Your task to perform on an android device: turn off improve location accuracy Image 0: 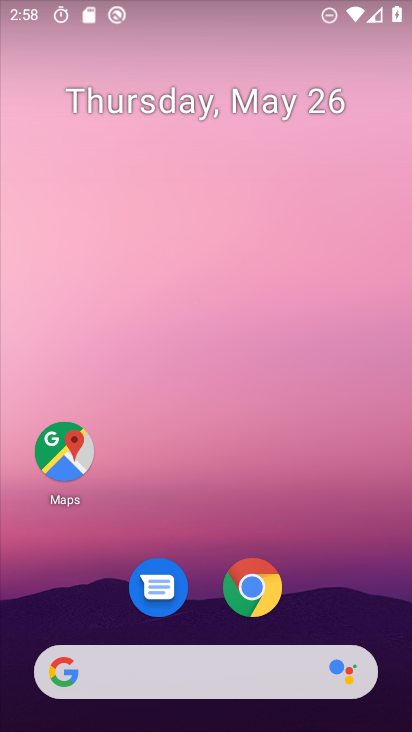
Step 0: drag from (365, 373) to (335, 97)
Your task to perform on an android device: turn off improve location accuracy Image 1: 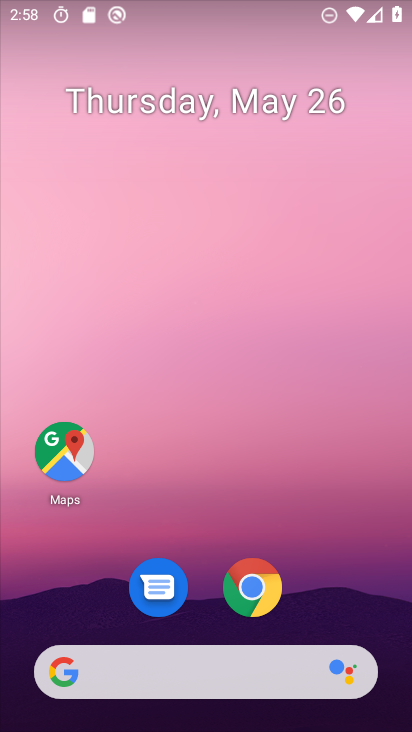
Step 1: drag from (276, 534) to (271, 156)
Your task to perform on an android device: turn off improve location accuracy Image 2: 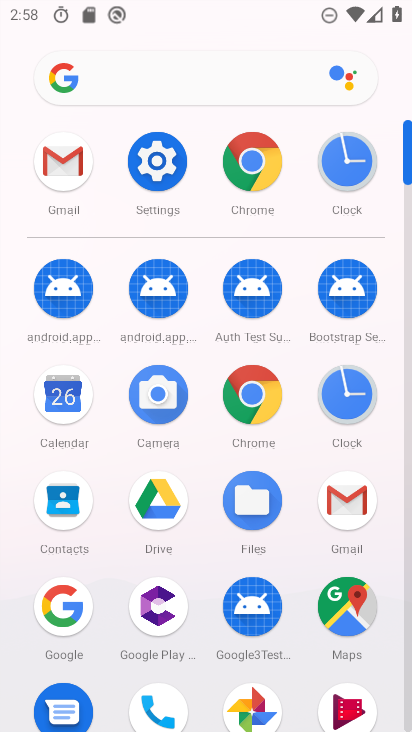
Step 2: click (177, 162)
Your task to perform on an android device: turn off improve location accuracy Image 3: 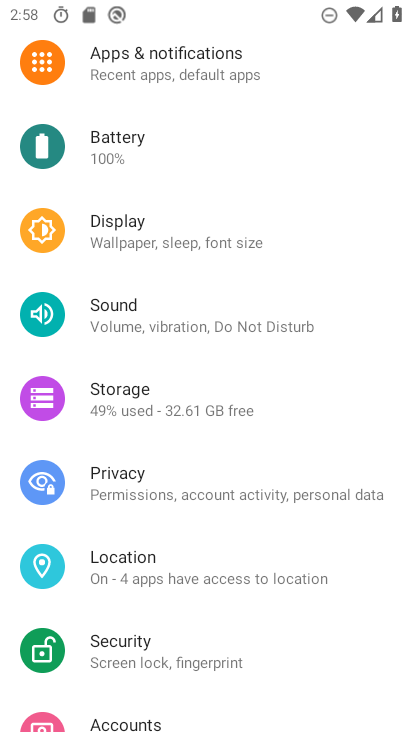
Step 3: click (137, 557)
Your task to perform on an android device: turn off improve location accuracy Image 4: 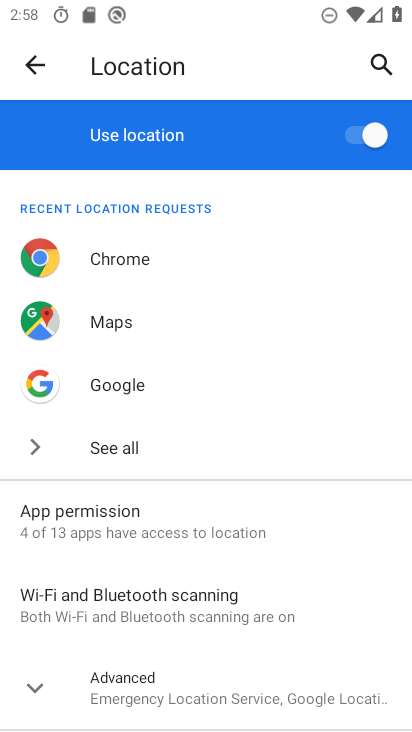
Step 4: click (185, 688)
Your task to perform on an android device: turn off improve location accuracy Image 5: 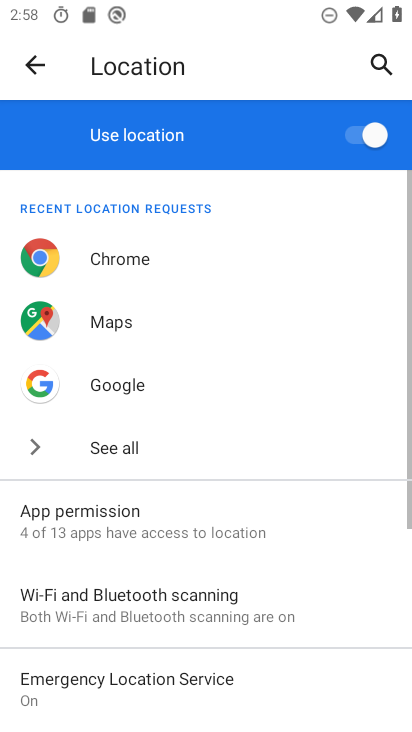
Step 5: drag from (188, 667) to (193, 239)
Your task to perform on an android device: turn off improve location accuracy Image 6: 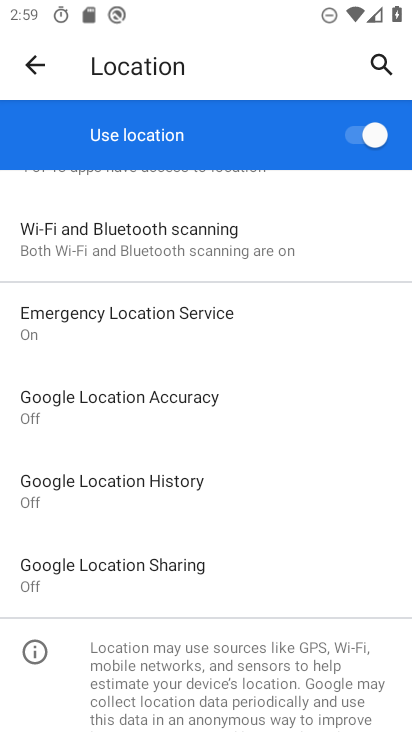
Step 6: click (174, 405)
Your task to perform on an android device: turn off improve location accuracy Image 7: 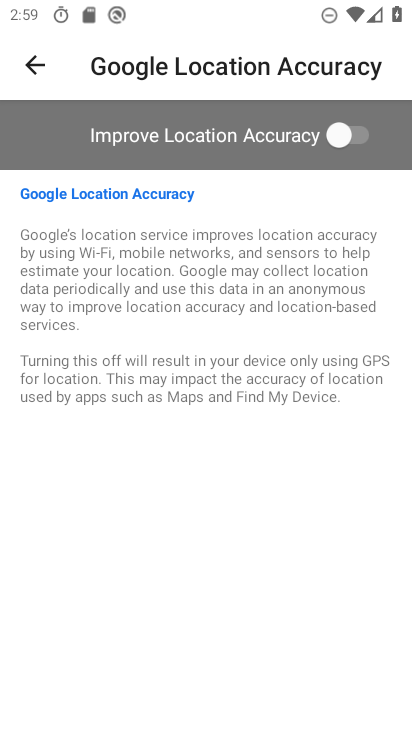
Step 7: task complete